Your task to perform on an android device: Go to wifi settings Image 0: 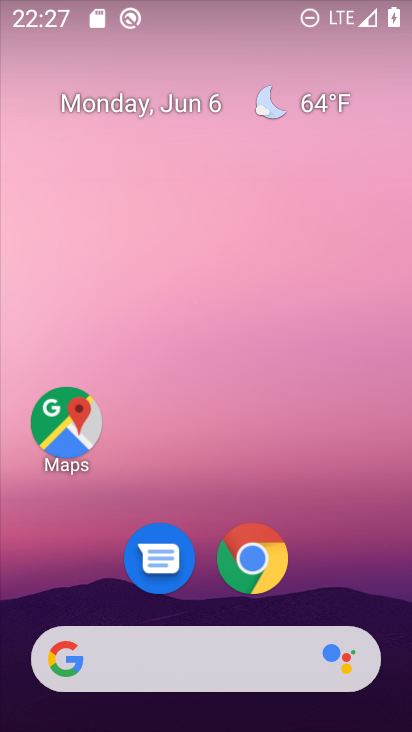
Step 0: drag from (204, 722) to (204, 91)
Your task to perform on an android device: Go to wifi settings Image 1: 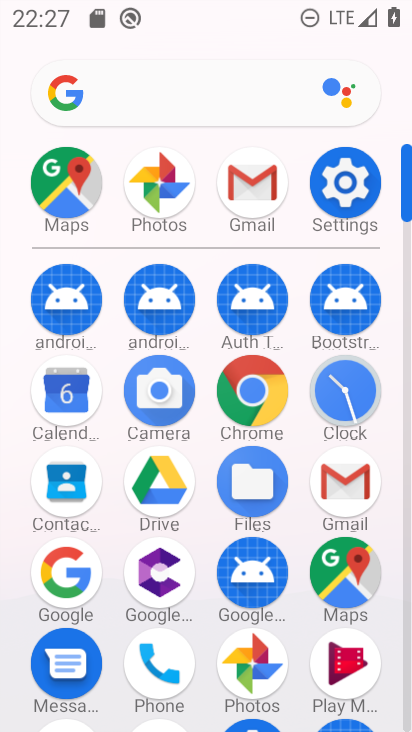
Step 1: click (332, 179)
Your task to perform on an android device: Go to wifi settings Image 2: 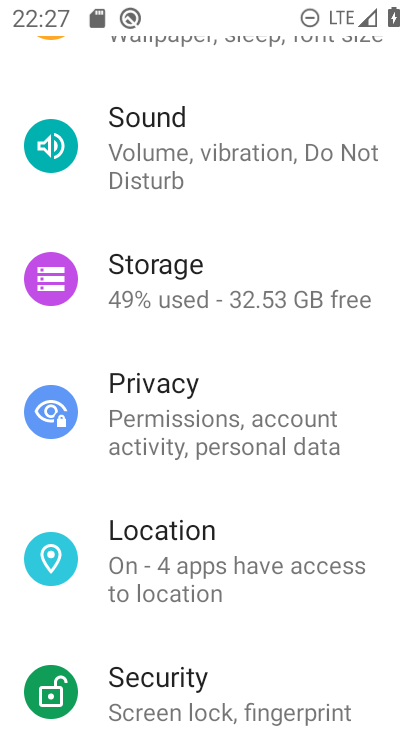
Step 2: drag from (190, 201) to (210, 514)
Your task to perform on an android device: Go to wifi settings Image 3: 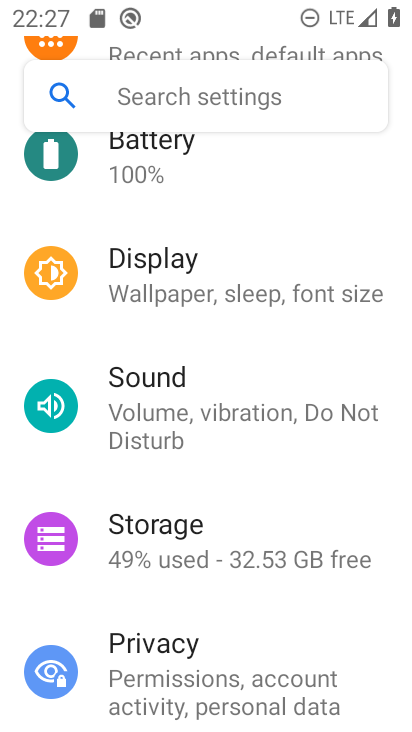
Step 3: drag from (245, 196) to (279, 534)
Your task to perform on an android device: Go to wifi settings Image 4: 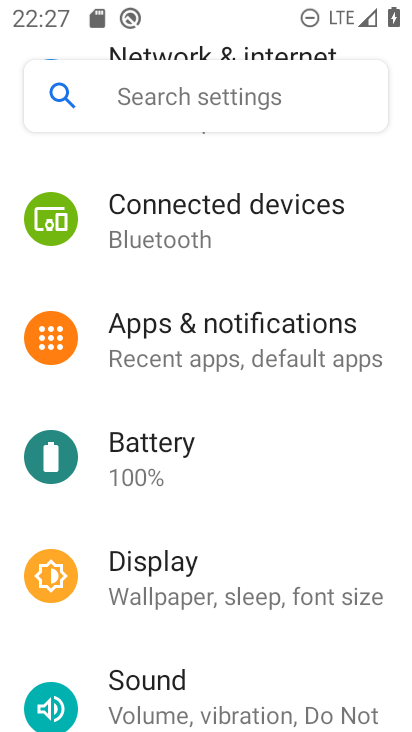
Step 4: drag from (230, 172) to (230, 470)
Your task to perform on an android device: Go to wifi settings Image 5: 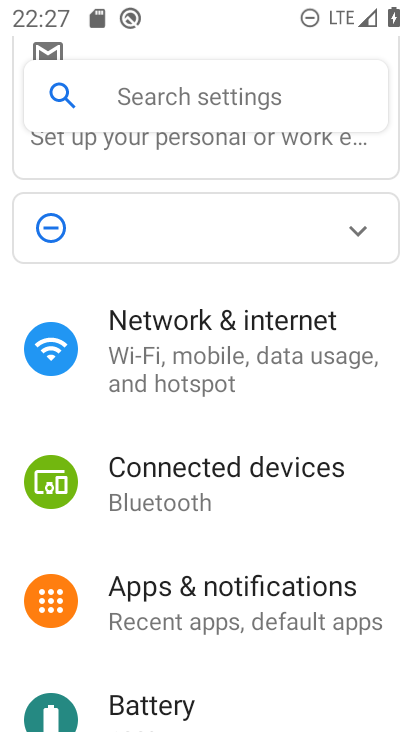
Step 5: click (203, 333)
Your task to perform on an android device: Go to wifi settings Image 6: 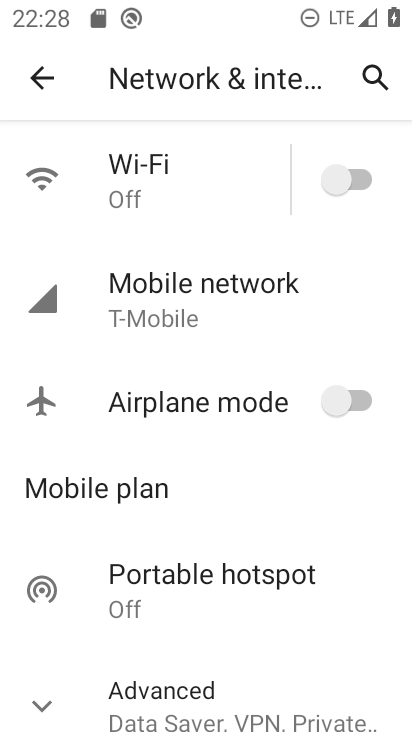
Step 6: task complete